Your task to perform on an android device: Go to notification settings Image 0: 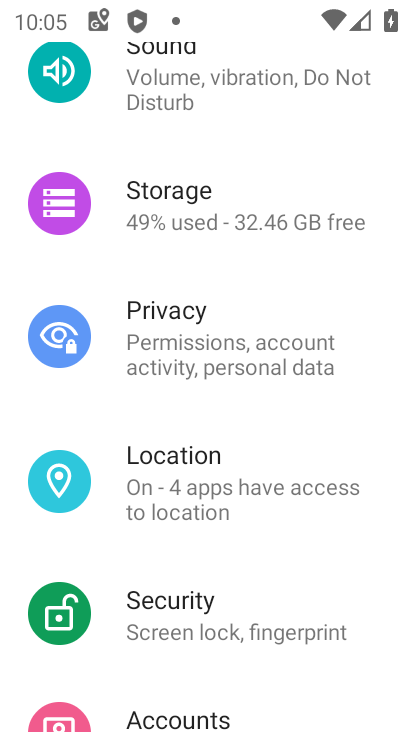
Step 0: click (252, 534)
Your task to perform on an android device: Go to notification settings Image 1: 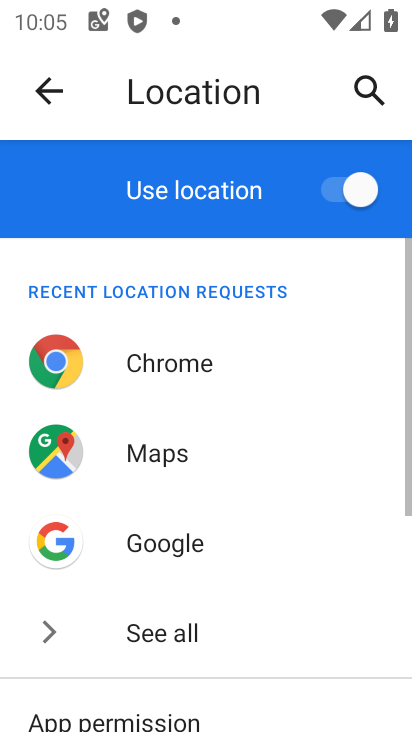
Step 1: press home button
Your task to perform on an android device: Go to notification settings Image 2: 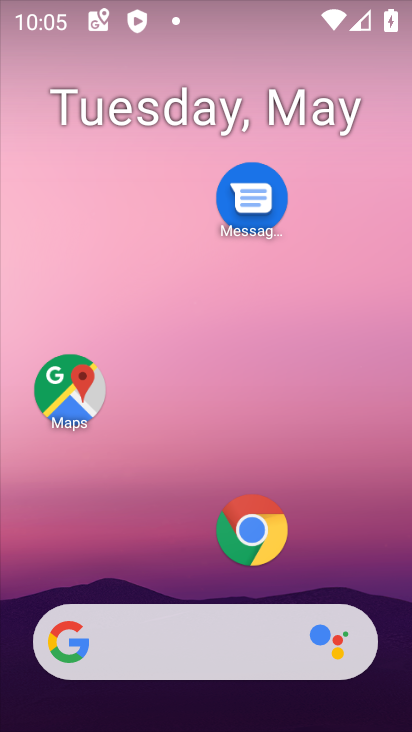
Step 2: drag from (173, 255) to (193, 43)
Your task to perform on an android device: Go to notification settings Image 3: 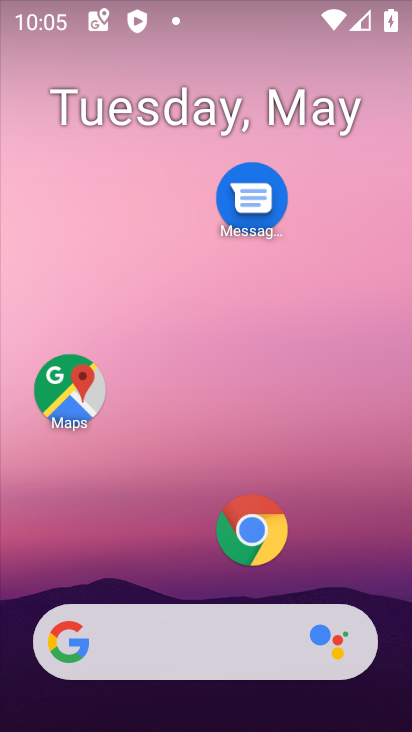
Step 3: drag from (170, 543) to (165, 111)
Your task to perform on an android device: Go to notification settings Image 4: 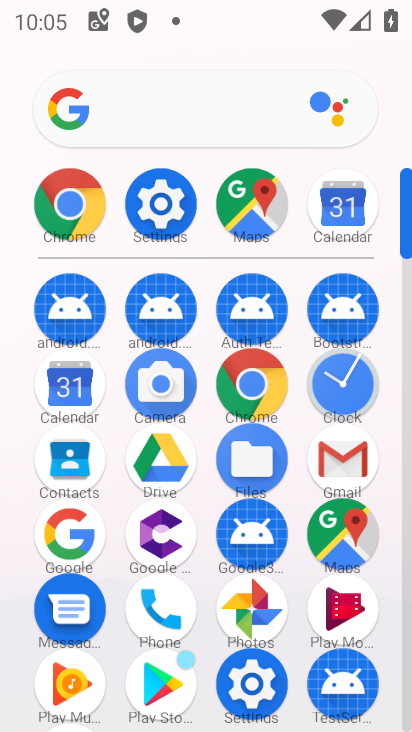
Step 4: click (158, 185)
Your task to perform on an android device: Go to notification settings Image 5: 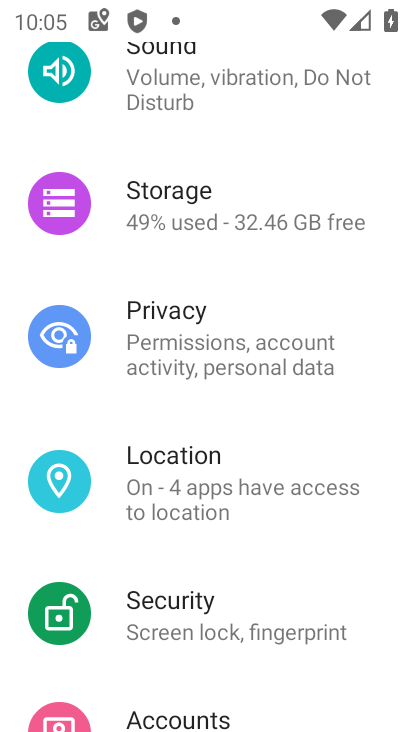
Step 5: drag from (182, 180) to (194, 483)
Your task to perform on an android device: Go to notification settings Image 6: 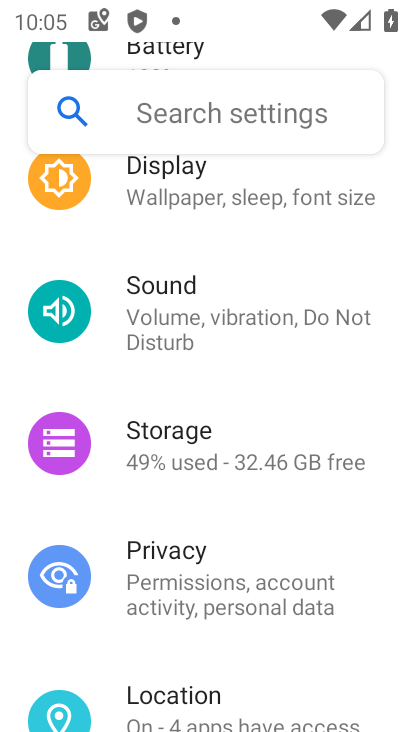
Step 6: drag from (181, 289) to (123, 627)
Your task to perform on an android device: Go to notification settings Image 7: 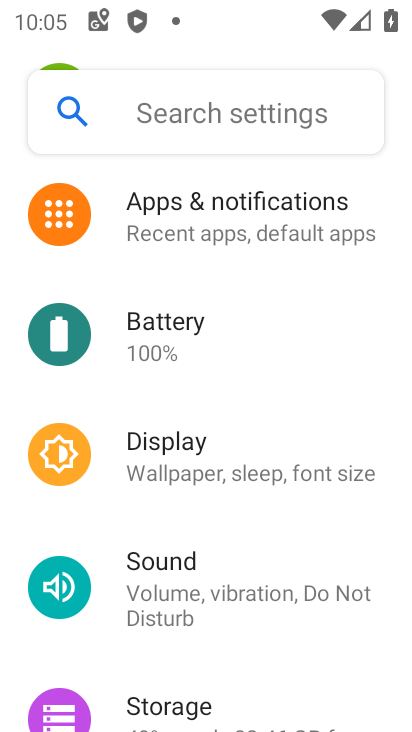
Step 7: click (219, 245)
Your task to perform on an android device: Go to notification settings Image 8: 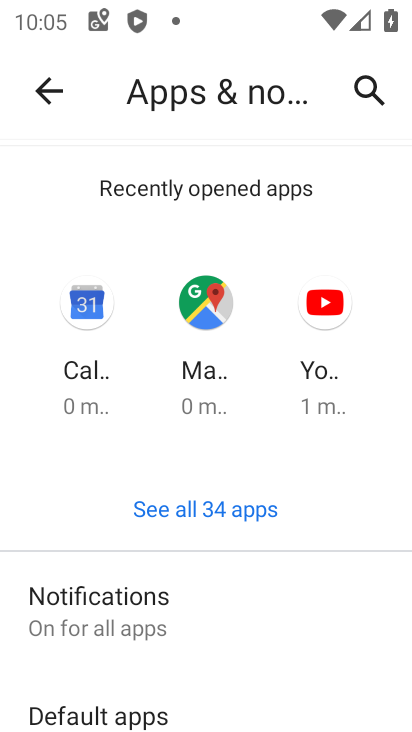
Step 8: drag from (35, 610) to (46, 472)
Your task to perform on an android device: Go to notification settings Image 9: 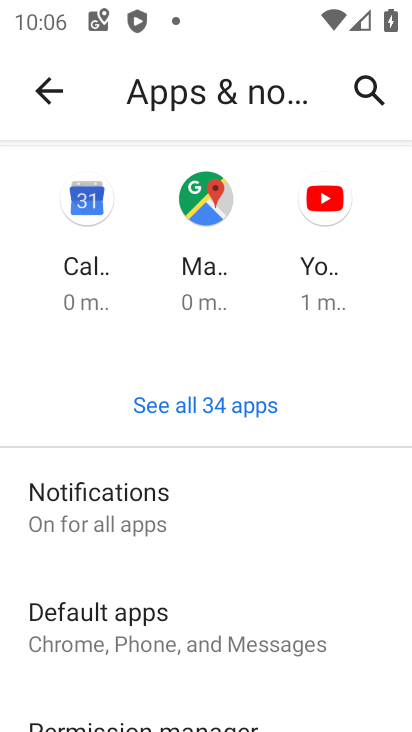
Step 9: click (100, 496)
Your task to perform on an android device: Go to notification settings Image 10: 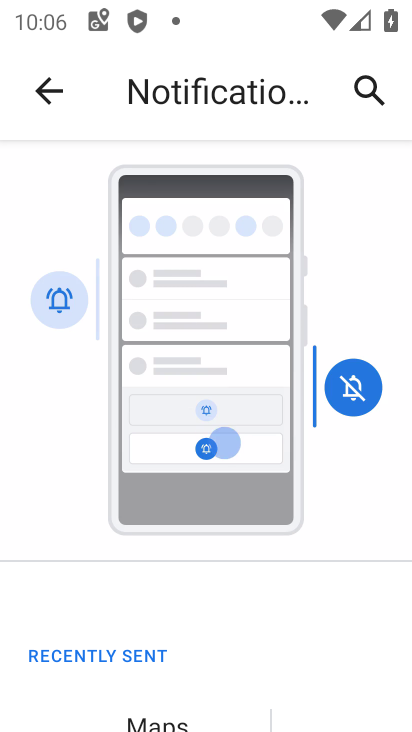
Step 10: task complete